Your task to perform on an android device: install app "Reddit" Image 0: 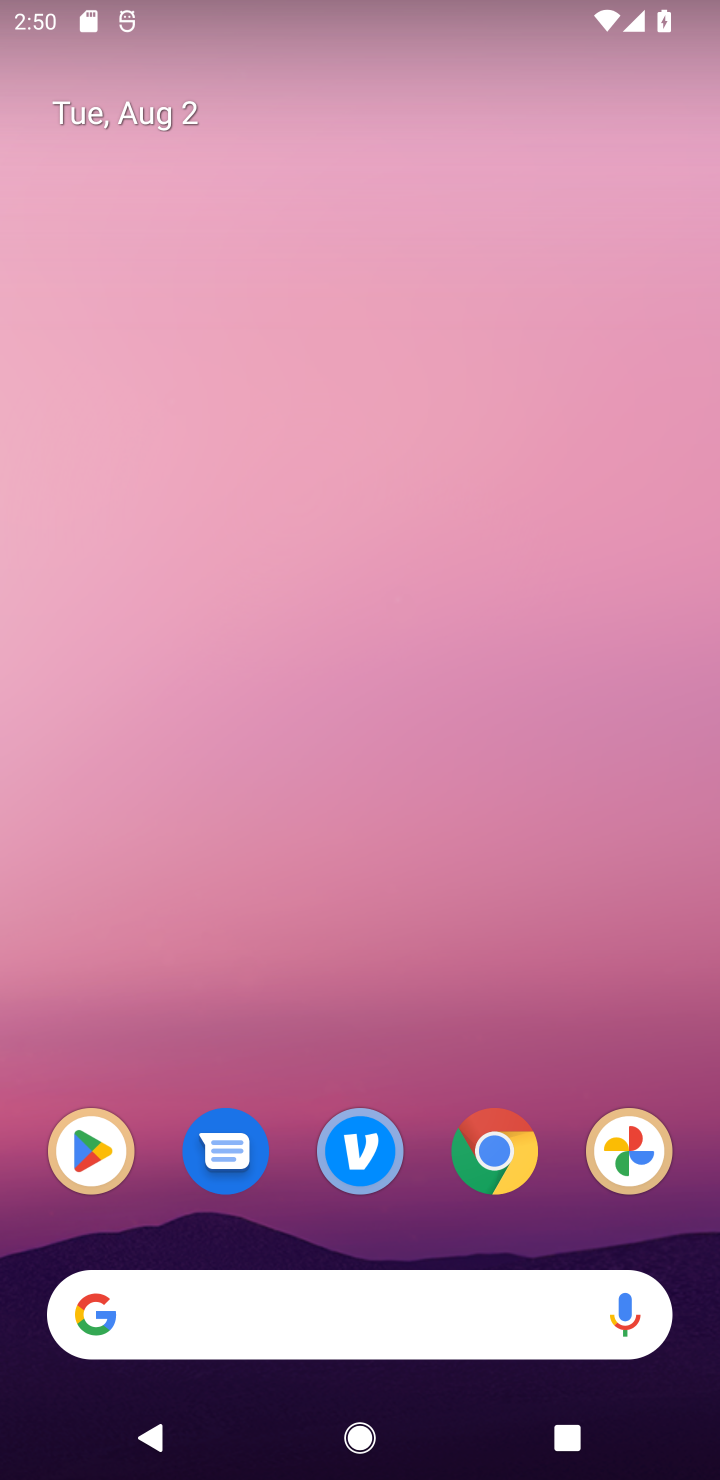
Step 0: drag from (355, 1317) to (515, 214)
Your task to perform on an android device: install app "Reddit" Image 1: 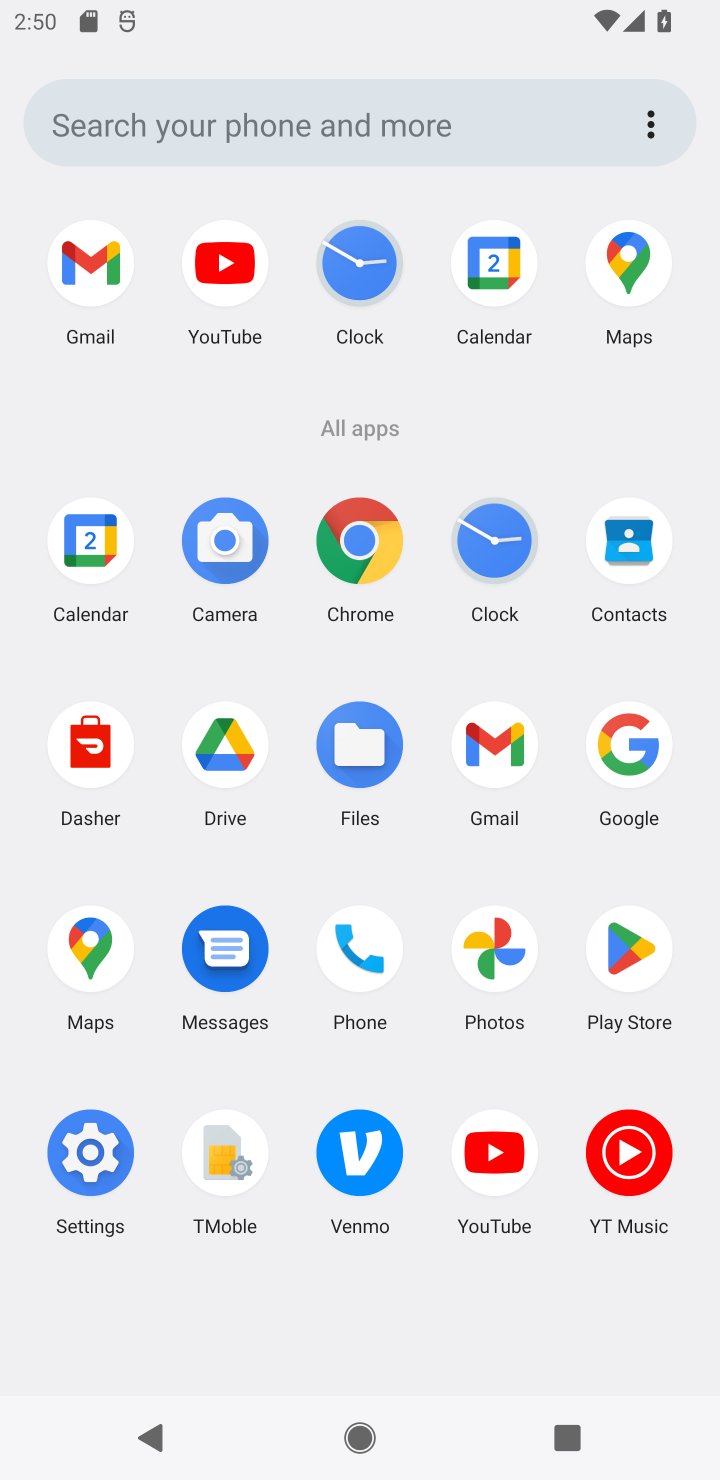
Step 1: click (635, 974)
Your task to perform on an android device: install app "Reddit" Image 2: 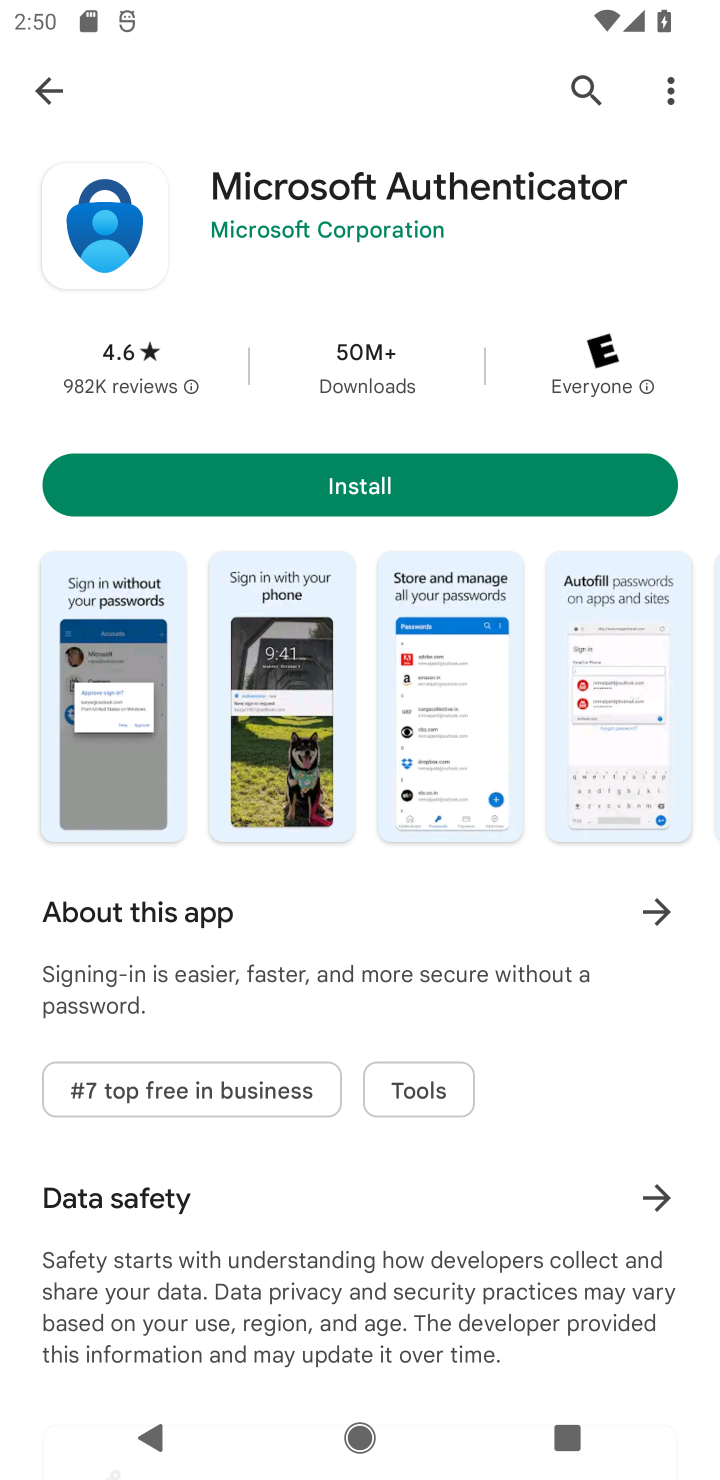
Step 2: click (46, 93)
Your task to perform on an android device: install app "Reddit" Image 3: 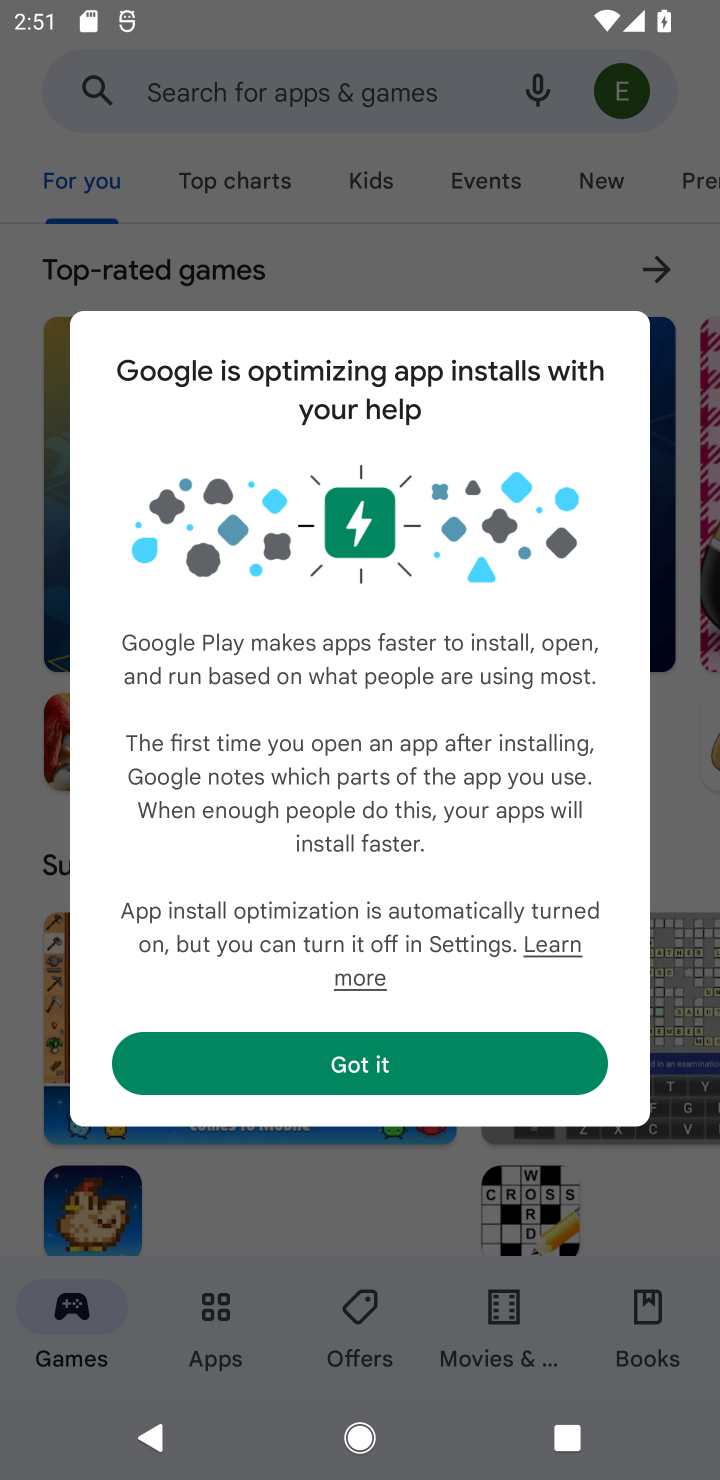
Step 3: click (349, 1093)
Your task to perform on an android device: install app "Reddit" Image 4: 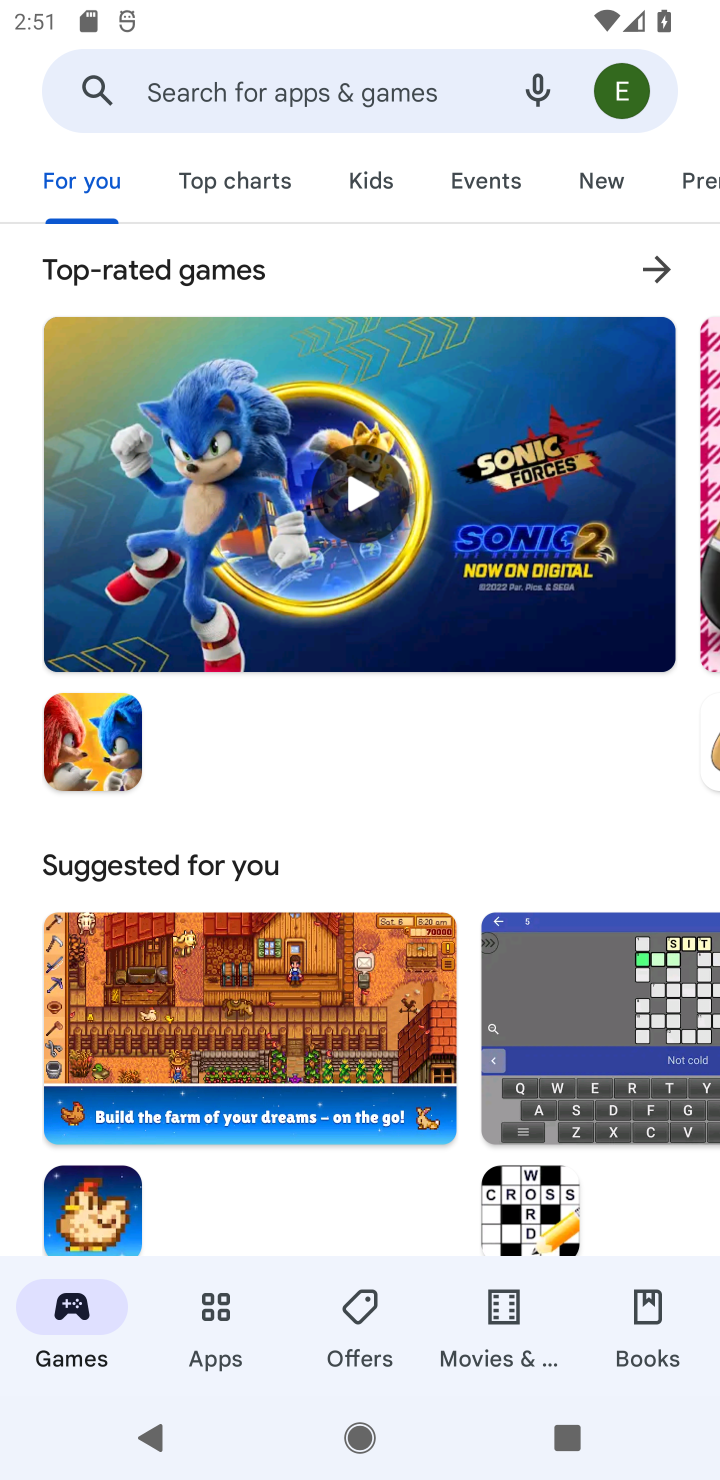
Step 4: click (349, 79)
Your task to perform on an android device: install app "Reddit" Image 5: 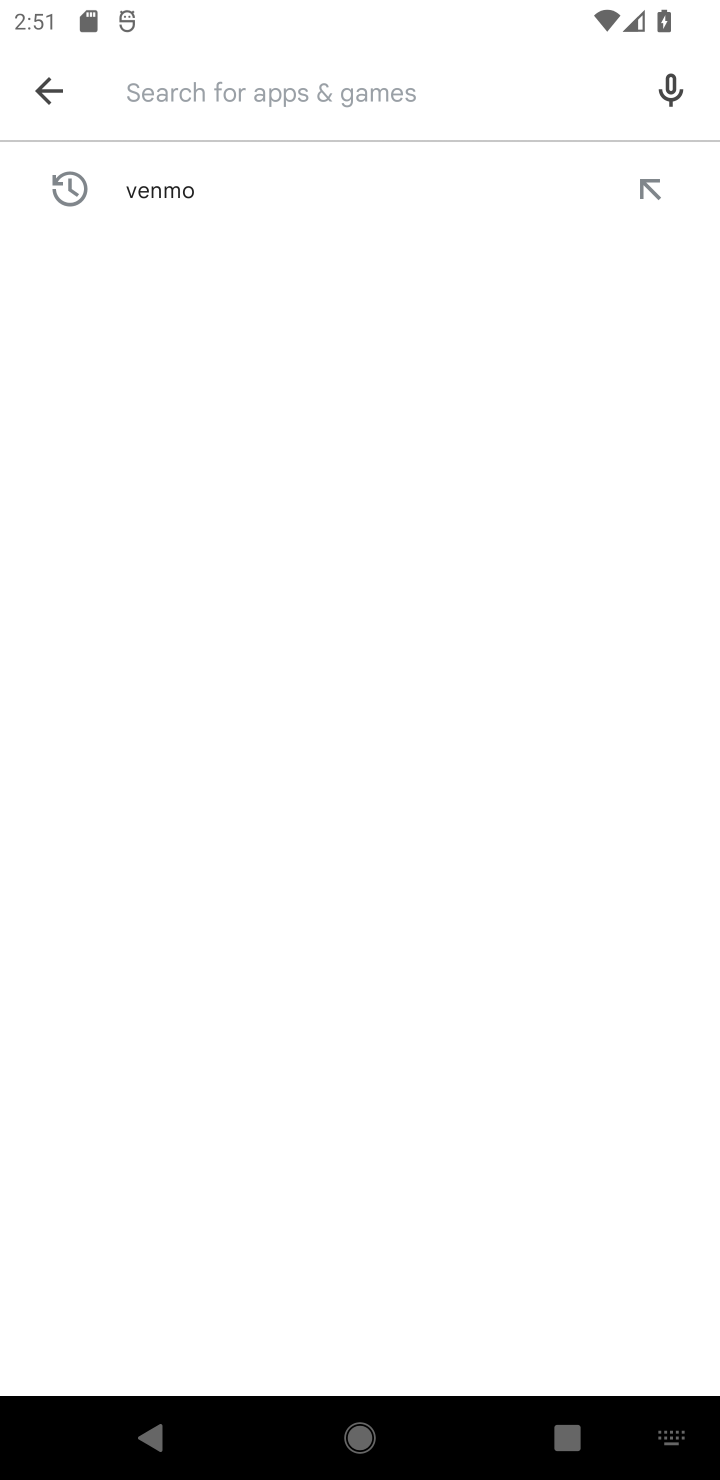
Step 5: type "Reddit"
Your task to perform on an android device: install app "Reddit" Image 6: 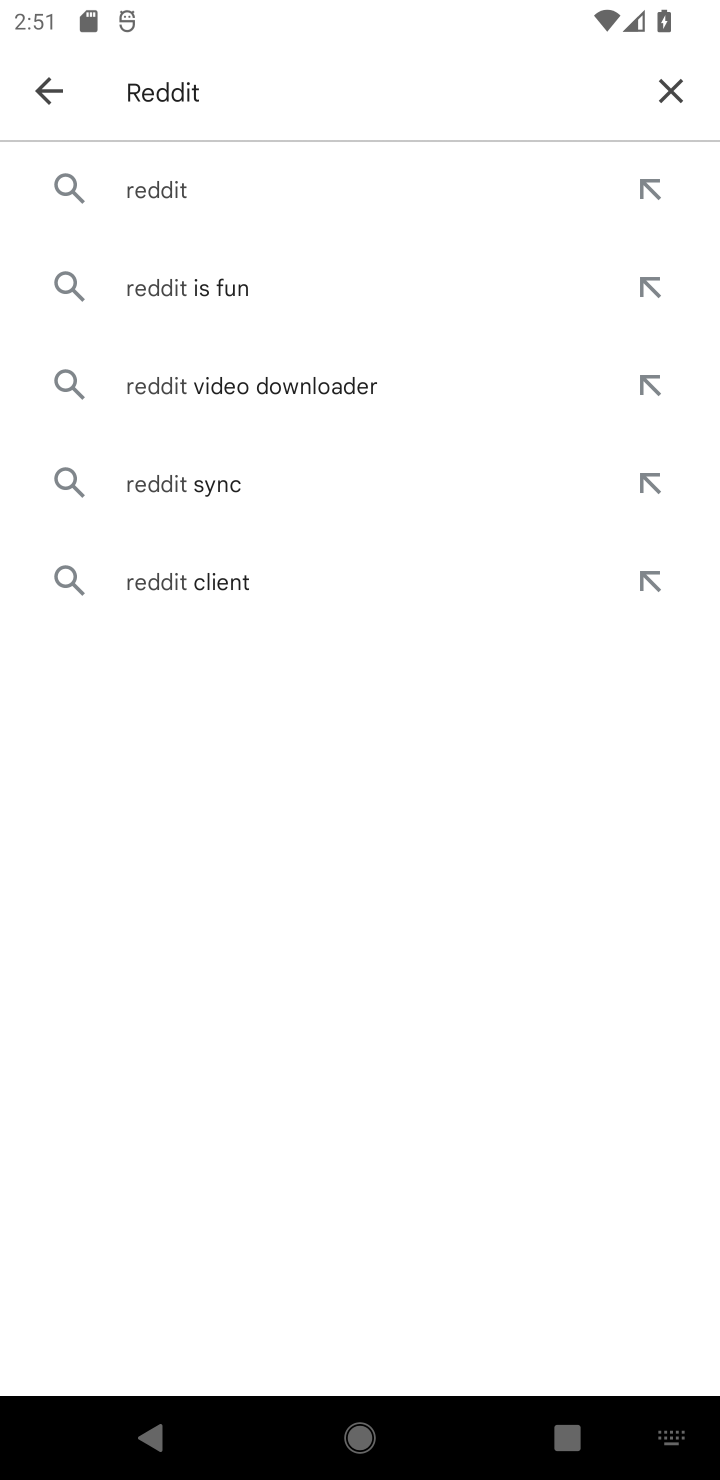
Step 6: click (195, 186)
Your task to perform on an android device: install app "Reddit" Image 7: 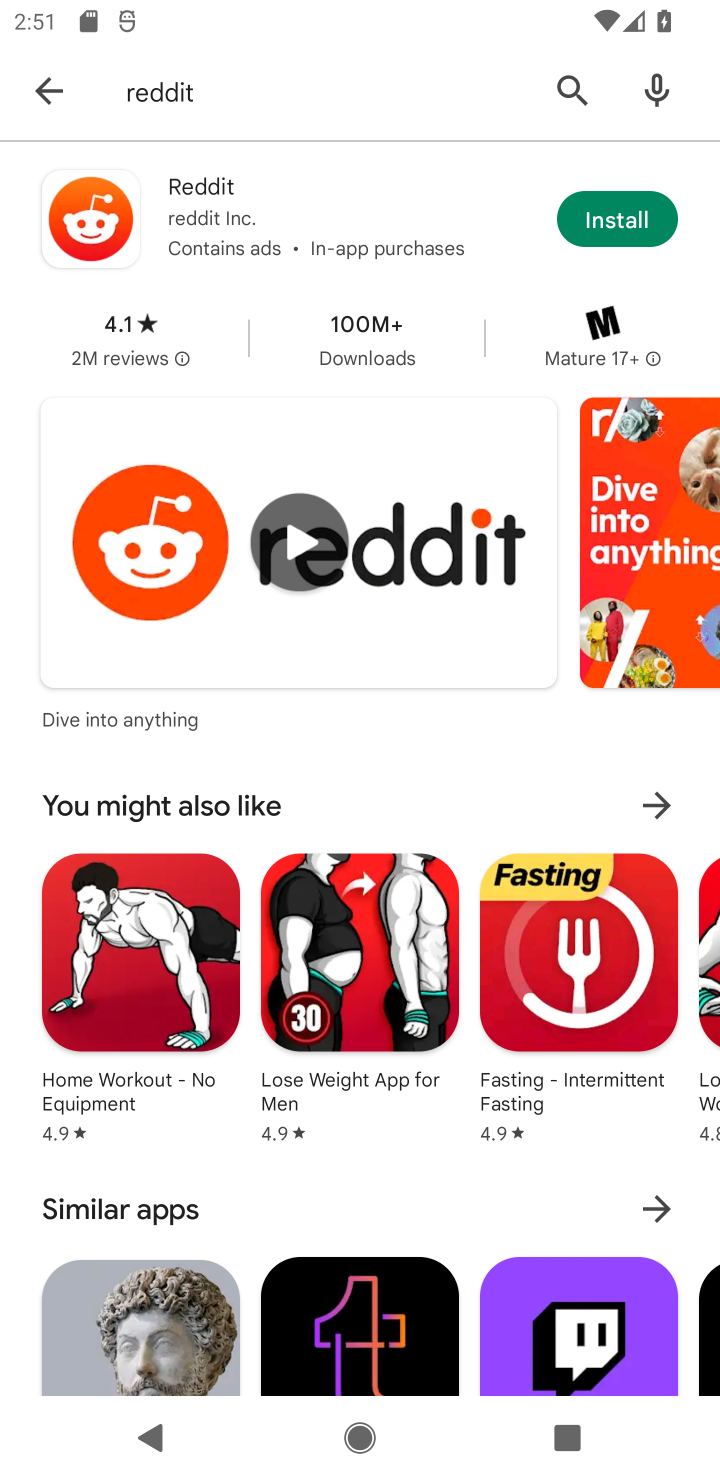
Step 7: click (602, 225)
Your task to perform on an android device: install app "Reddit" Image 8: 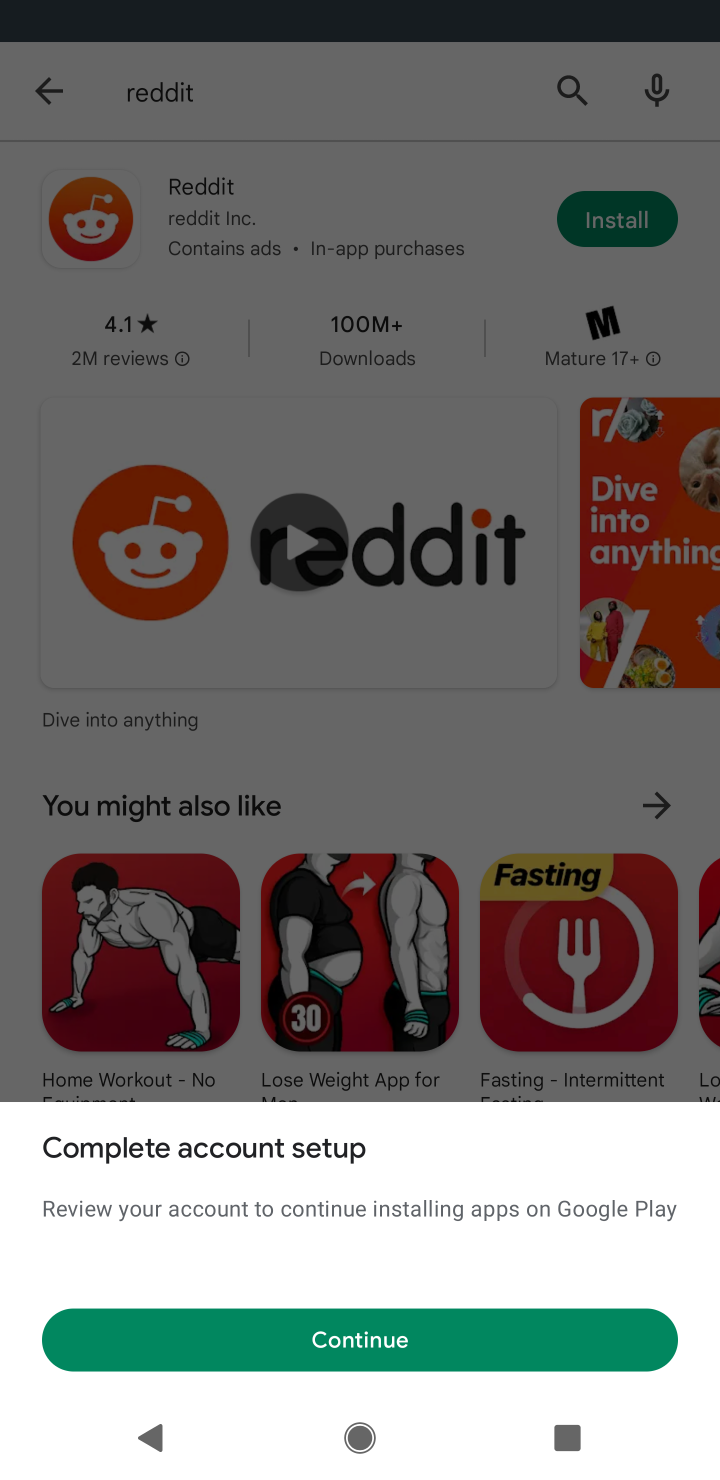
Step 8: click (333, 1328)
Your task to perform on an android device: install app "Reddit" Image 9: 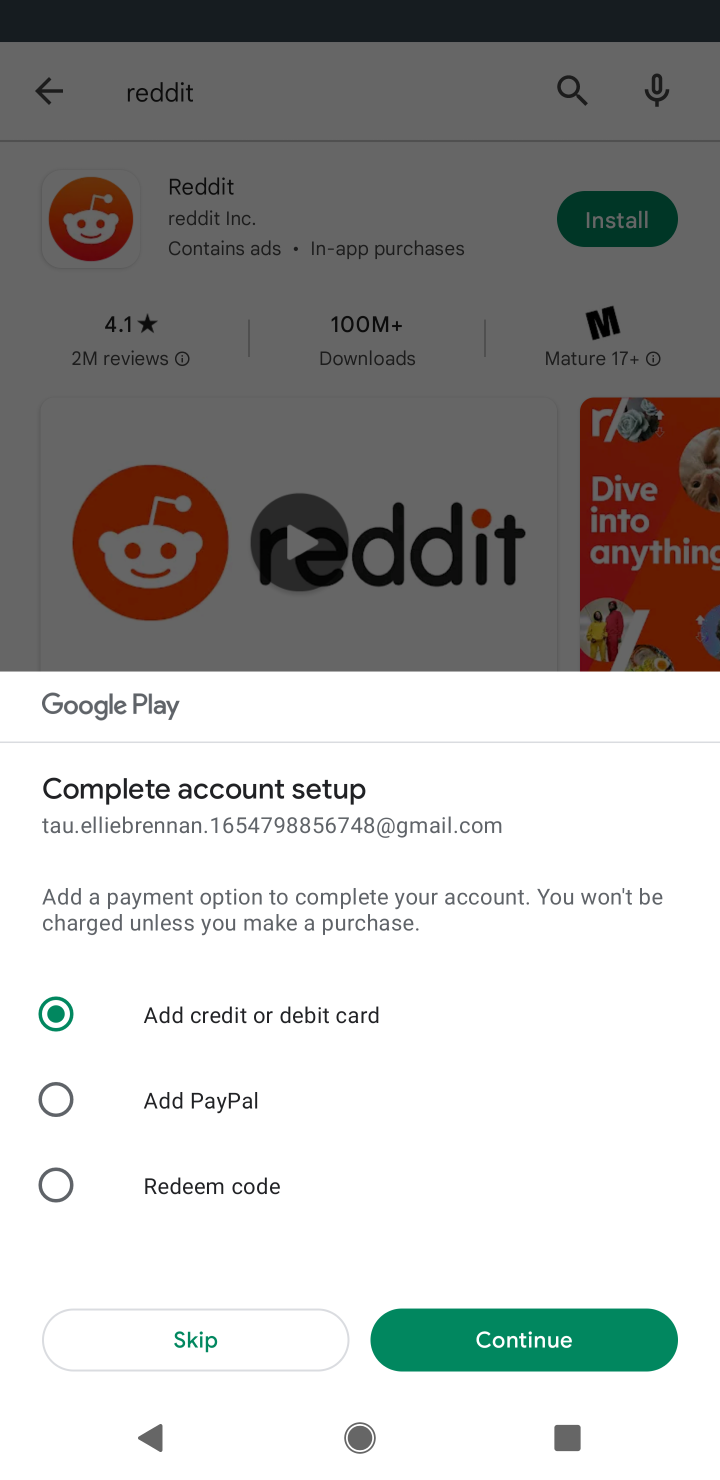
Step 9: click (218, 1315)
Your task to perform on an android device: install app "Reddit" Image 10: 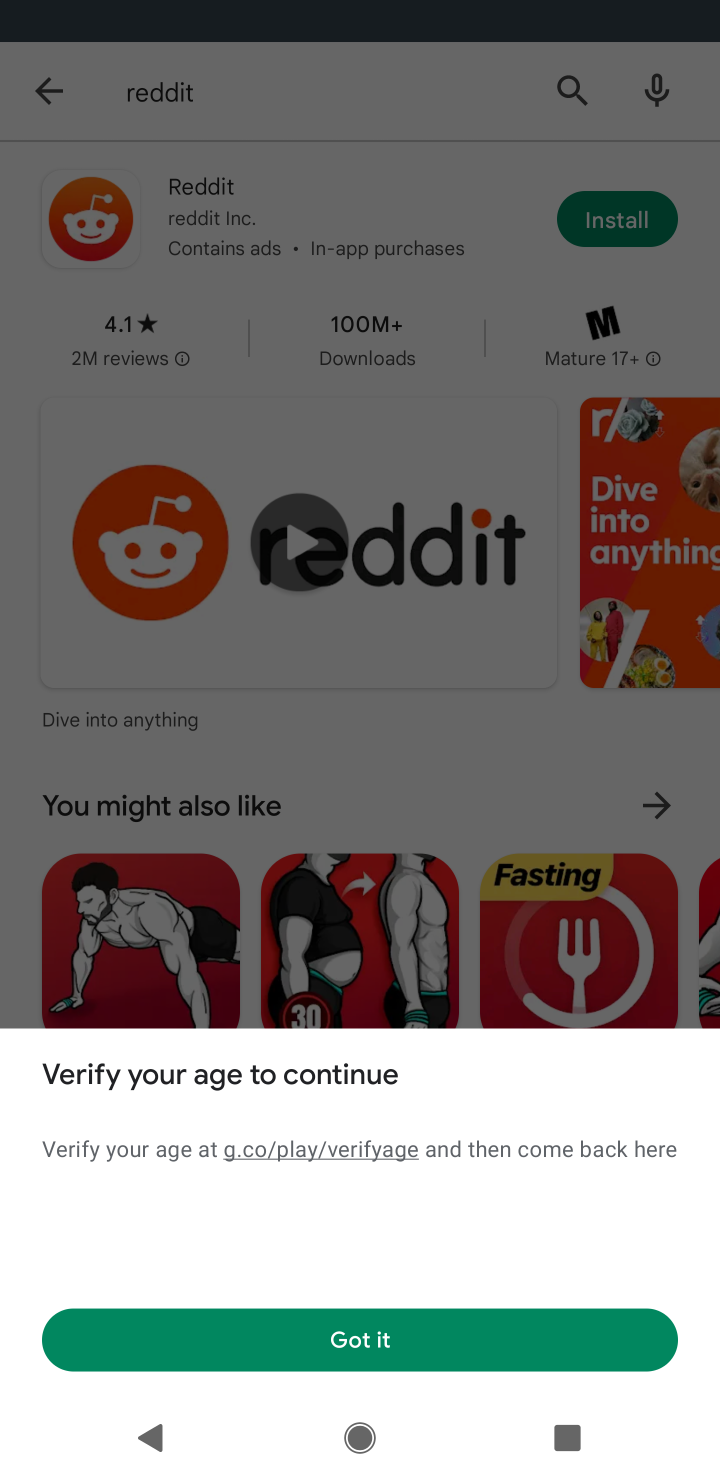
Step 10: click (222, 1336)
Your task to perform on an android device: install app "Reddit" Image 11: 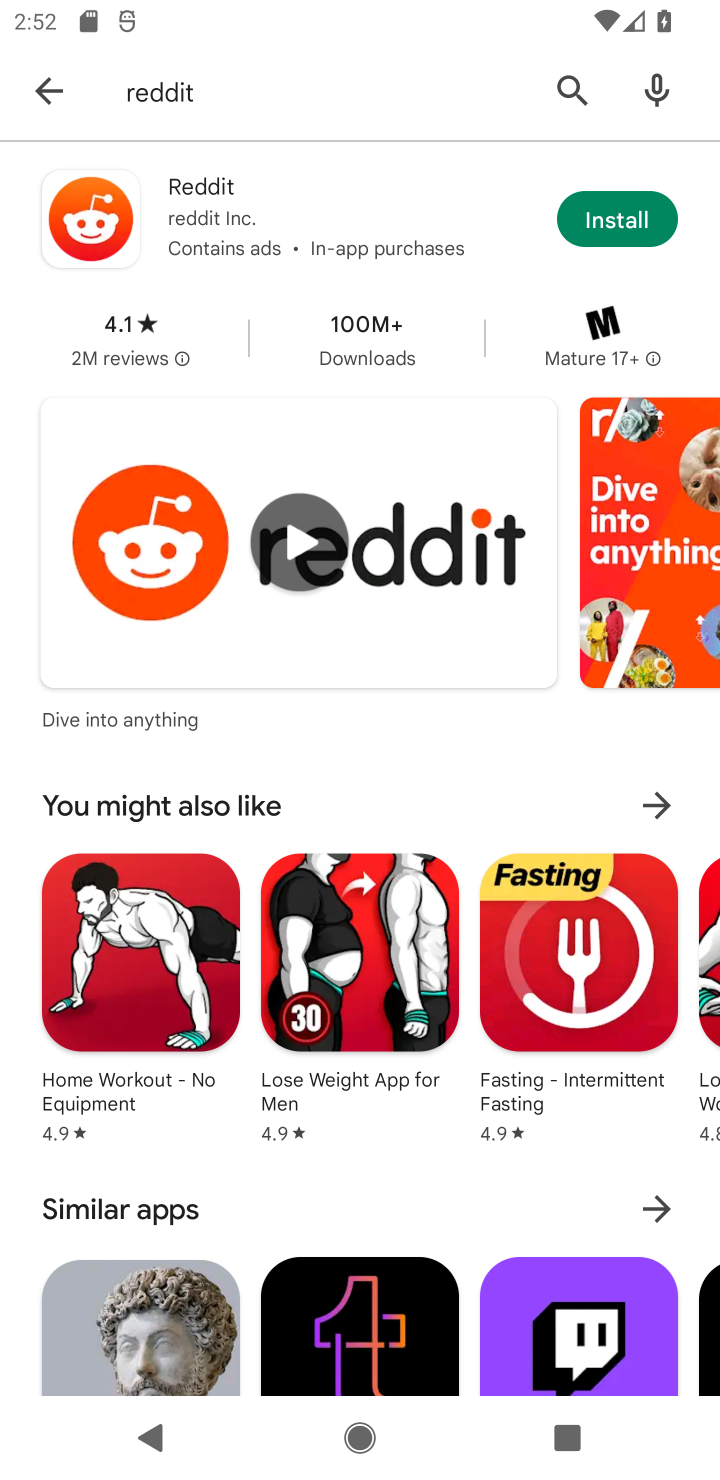
Step 11: click (647, 223)
Your task to perform on an android device: install app "Reddit" Image 12: 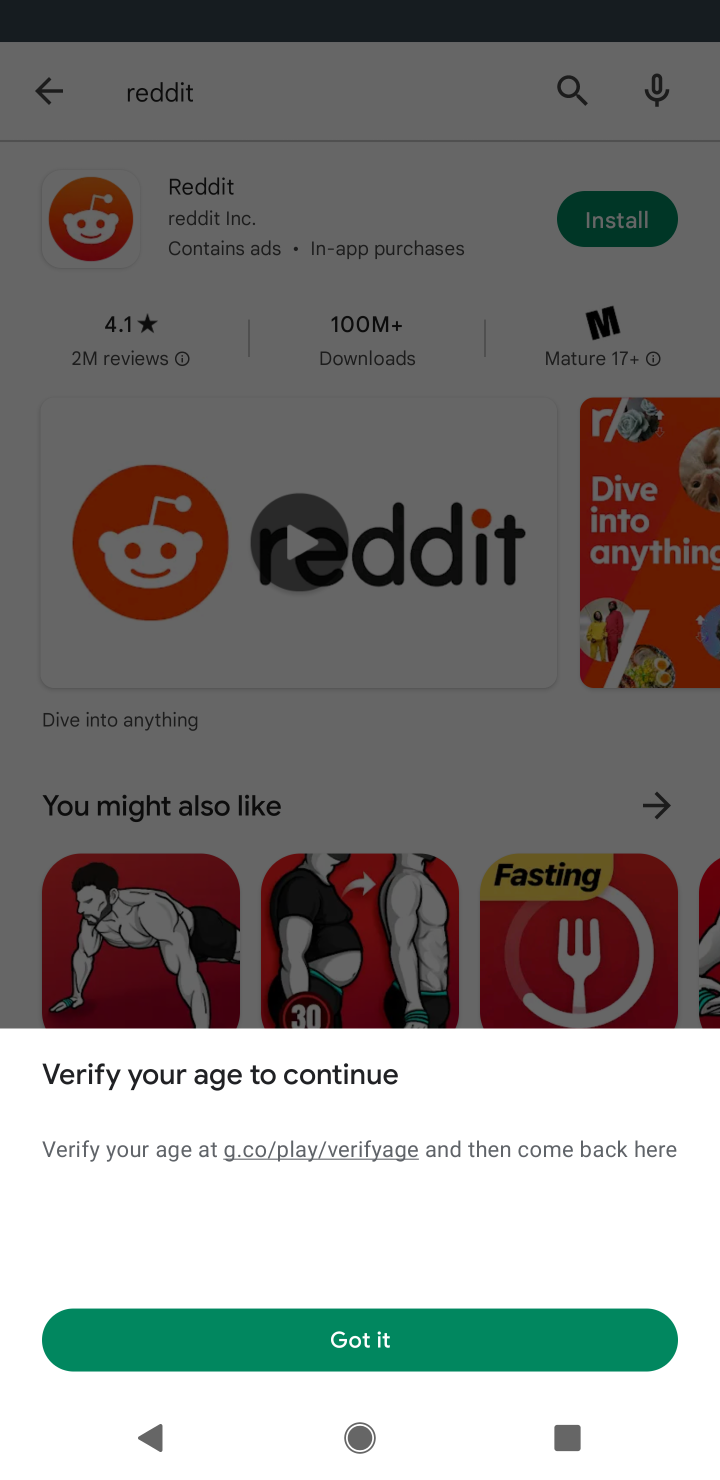
Step 12: click (344, 1345)
Your task to perform on an android device: install app "Reddit" Image 13: 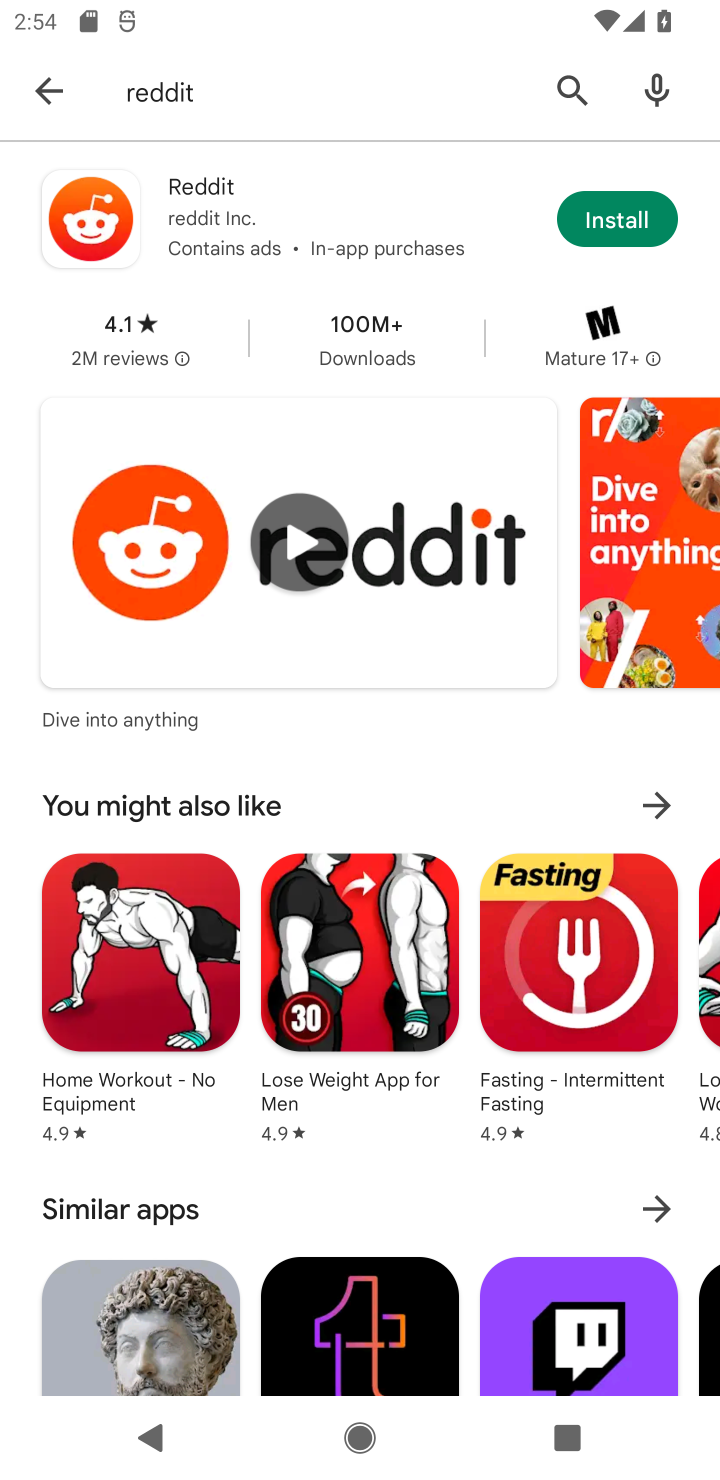
Step 13: click (617, 225)
Your task to perform on an android device: install app "Reddit" Image 14: 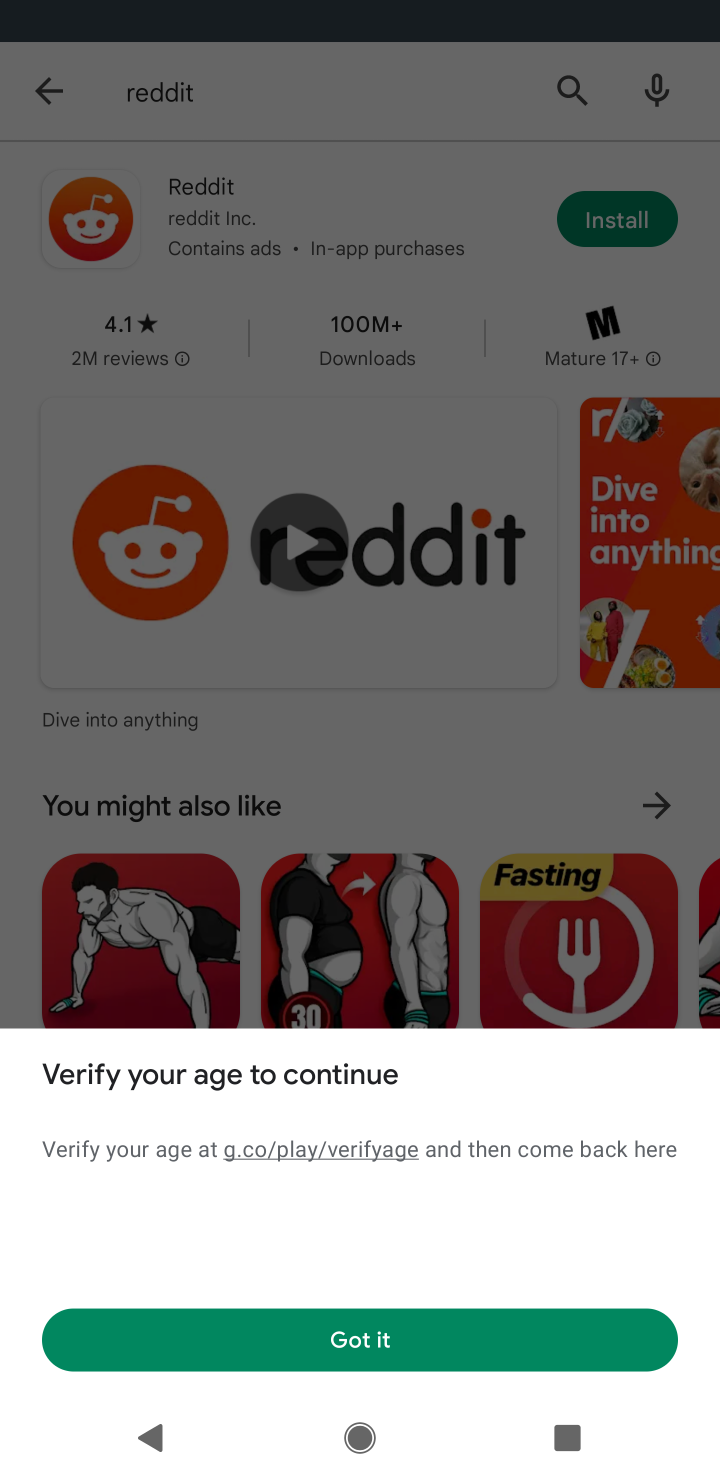
Step 14: click (305, 1149)
Your task to perform on an android device: install app "Reddit" Image 15: 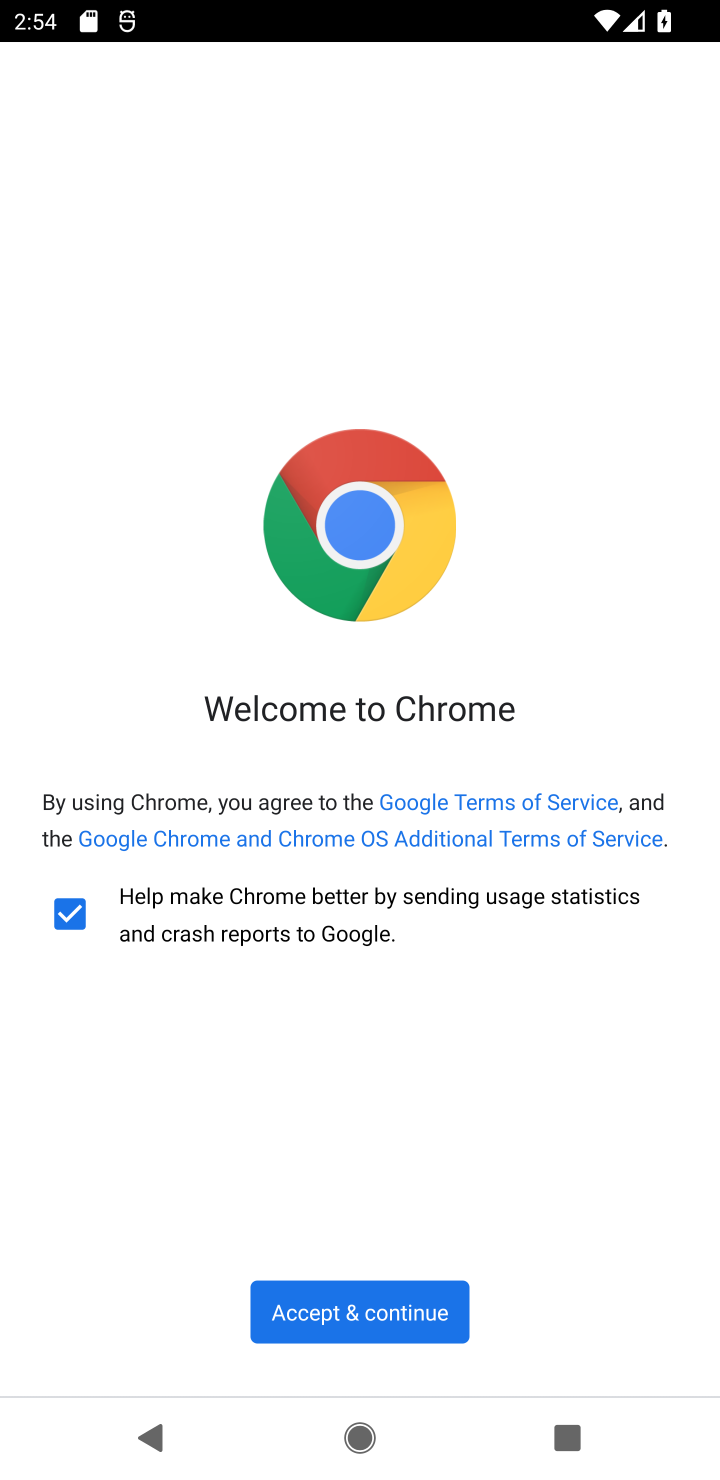
Step 15: click (305, 1149)
Your task to perform on an android device: install app "Reddit" Image 16: 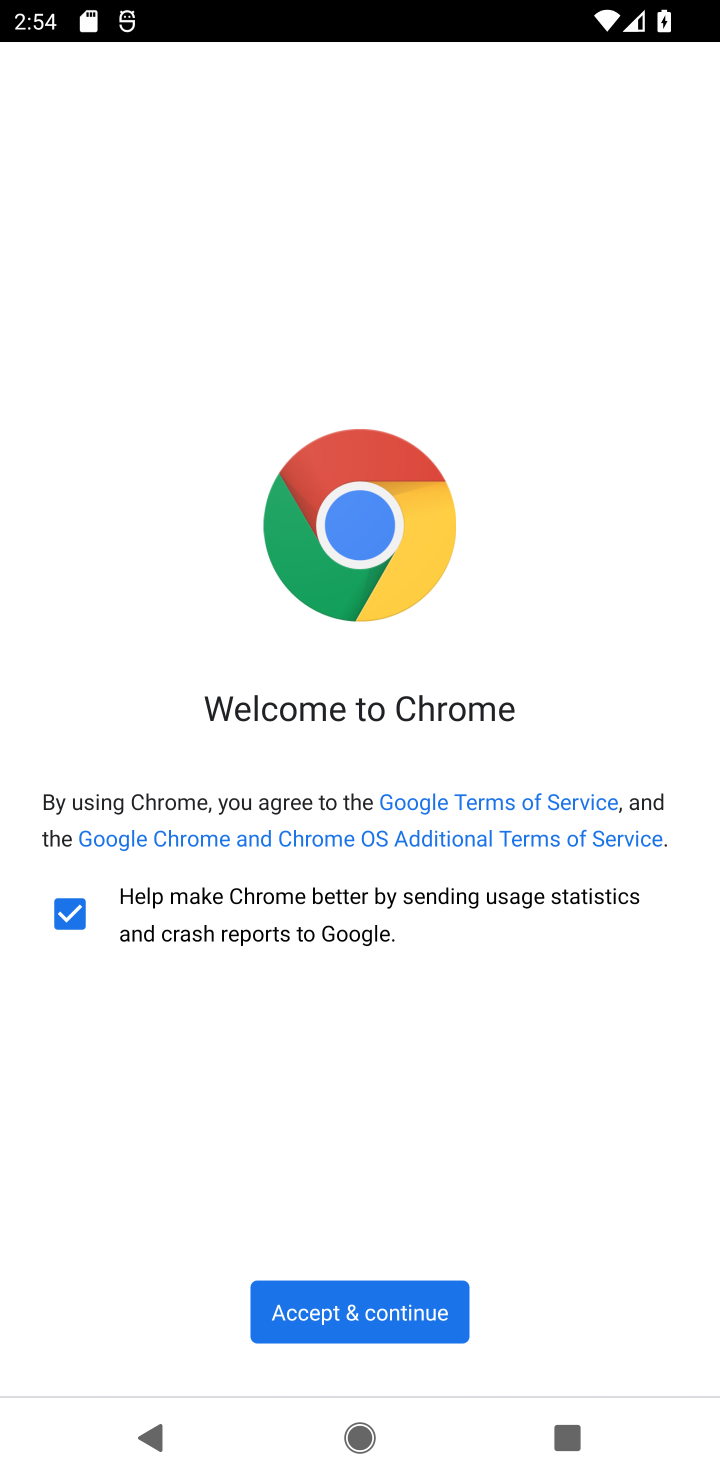
Step 16: click (335, 1299)
Your task to perform on an android device: install app "Reddit" Image 17: 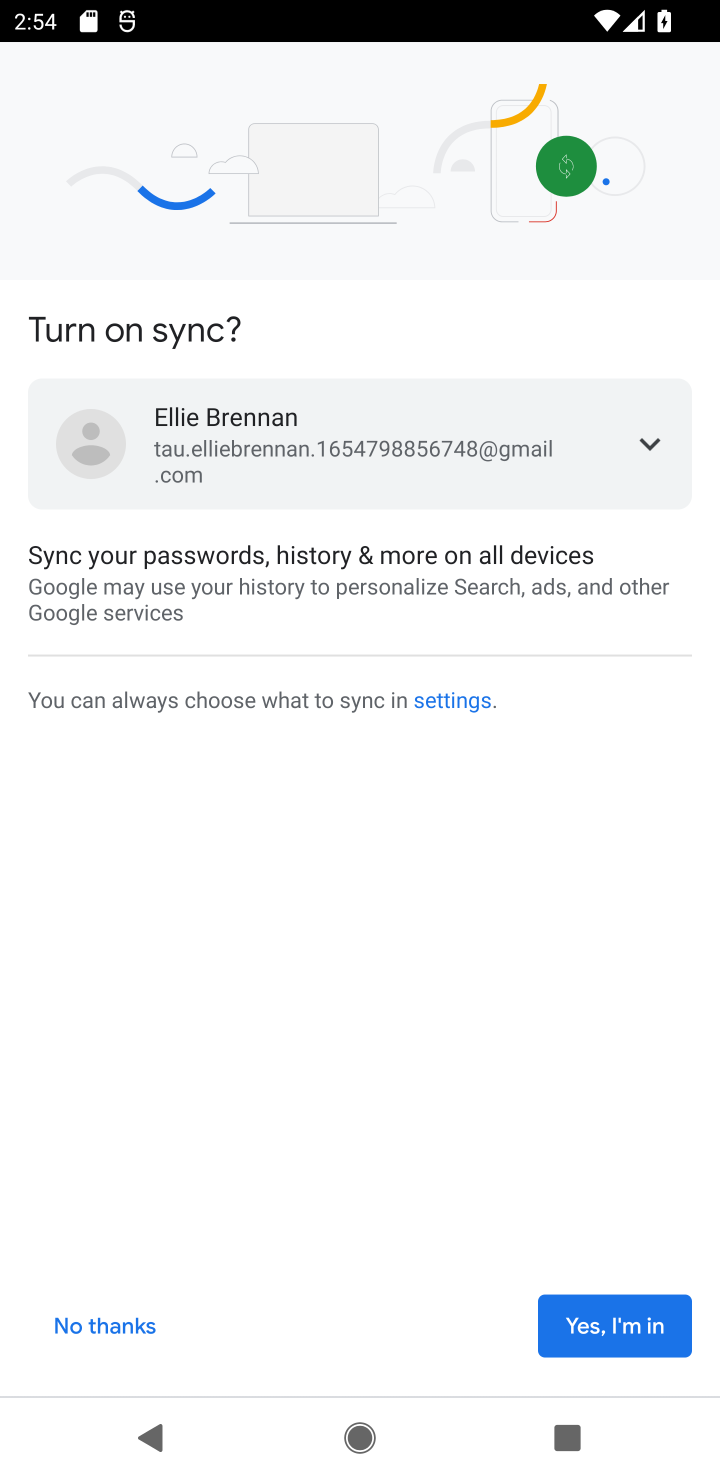
Step 17: click (585, 1310)
Your task to perform on an android device: install app "Reddit" Image 18: 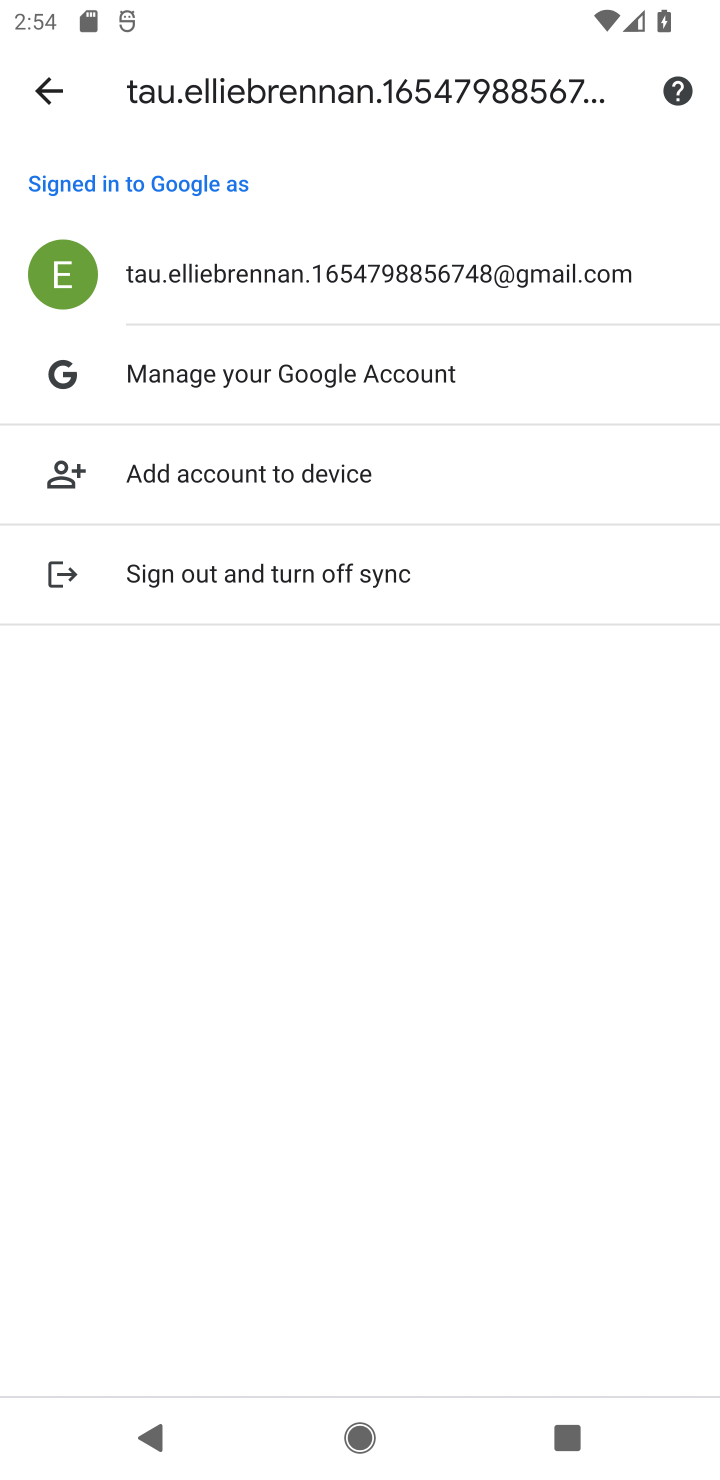
Step 18: task complete